Your task to perform on an android device: set an alarm Image 0: 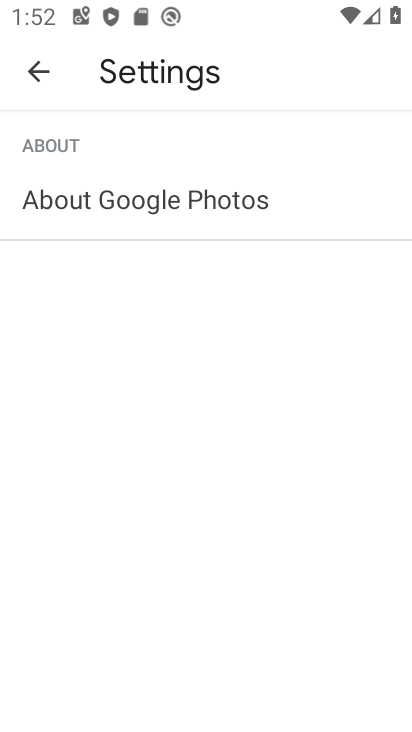
Step 0: press home button
Your task to perform on an android device: set an alarm Image 1: 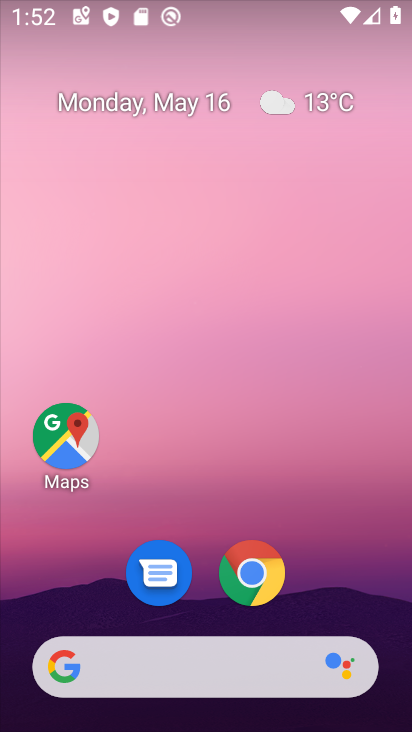
Step 1: drag from (171, 641) to (132, 75)
Your task to perform on an android device: set an alarm Image 2: 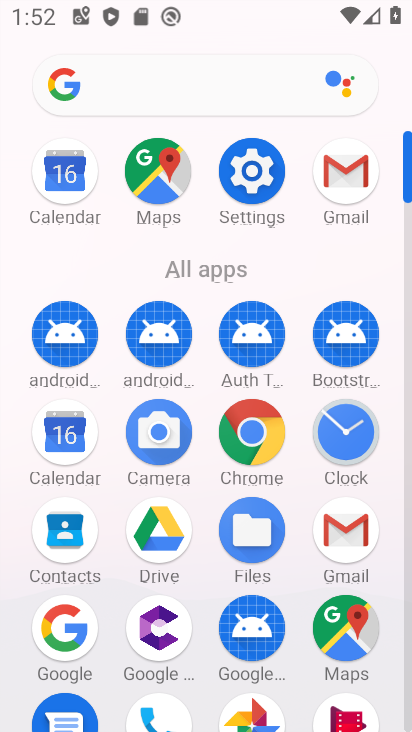
Step 2: click (343, 399)
Your task to perform on an android device: set an alarm Image 3: 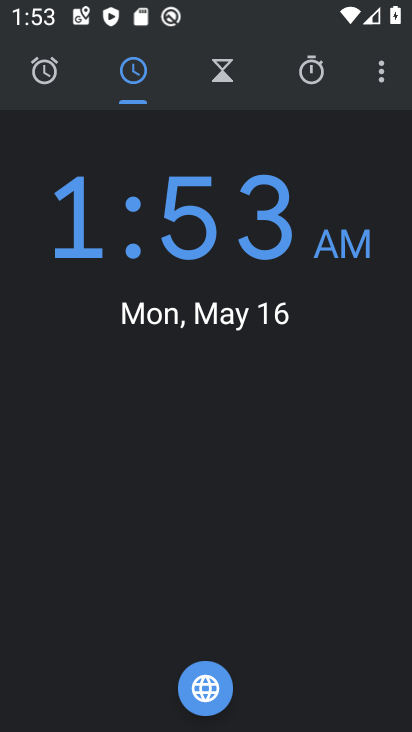
Step 3: click (33, 58)
Your task to perform on an android device: set an alarm Image 4: 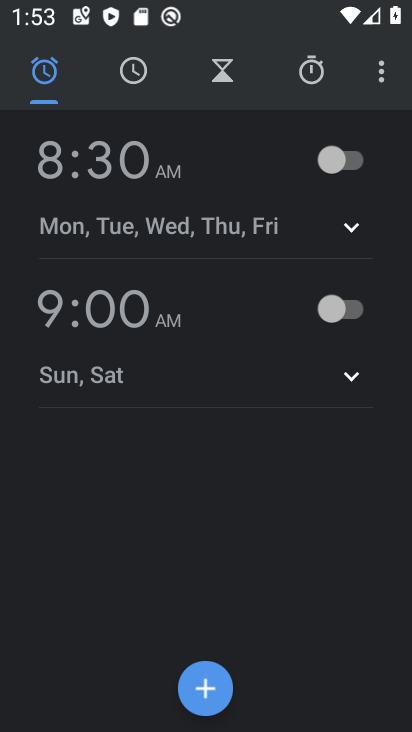
Step 4: click (210, 686)
Your task to perform on an android device: set an alarm Image 5: 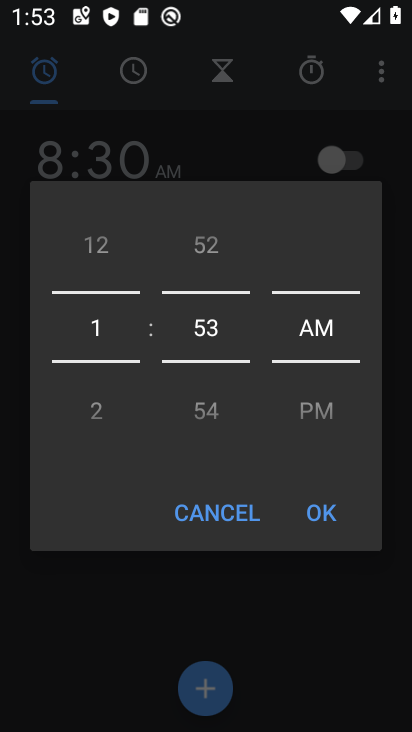
Step 5: click (335, 498)
Your task to perform on an android device: set an alarm Image 6: 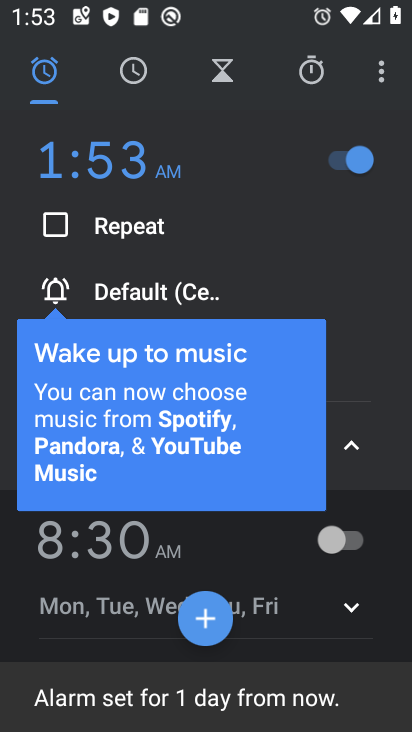
Step 6: task complete